Your task to perform on an android device: Show me productivity apps on the Play Store Image 0: 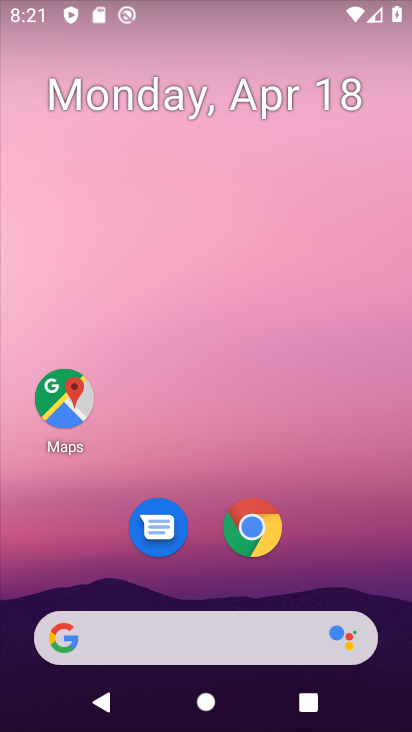
Step 0: drag from (188, 407) to (238, 23)
Your task to perform on an android device: Show me productivity apps on the Play Store Image 1: 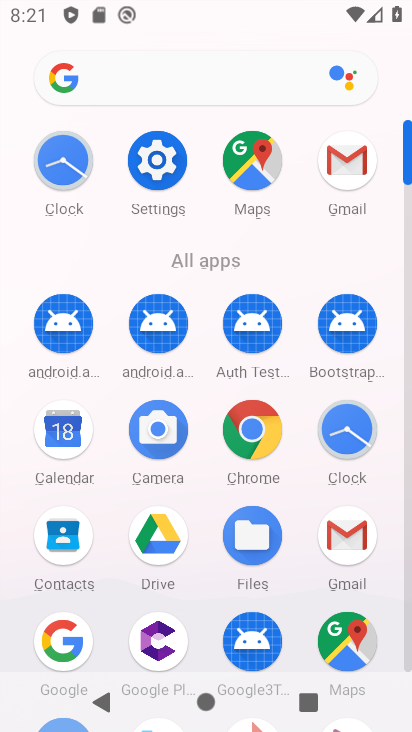
Step 1: drag from (207, 652) to (241, 178)
Your task to perform on an android device: Show me productivity apps on the Play Store Image 2: 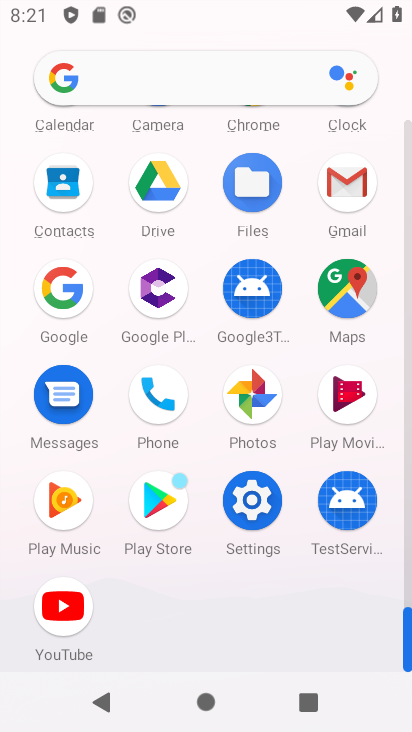
Step 2: click (157, 509)
Your task to perform on an android device: Show me productivity apps on the Play Store Image 3: 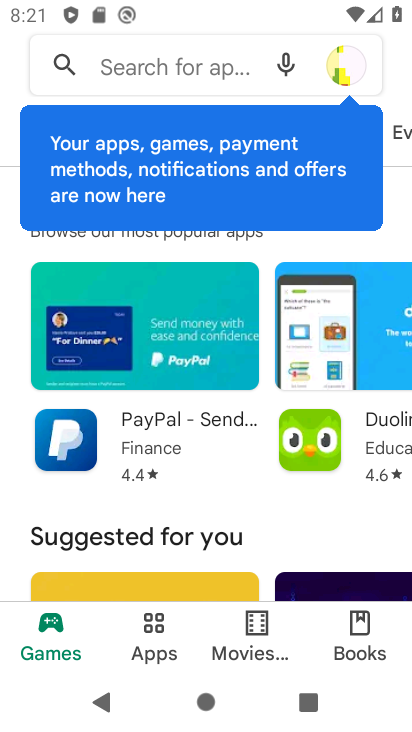
Step 3: click (219, 69)
Your task to perform on an android device: Show me productivity apps on the Play Store Image 4: 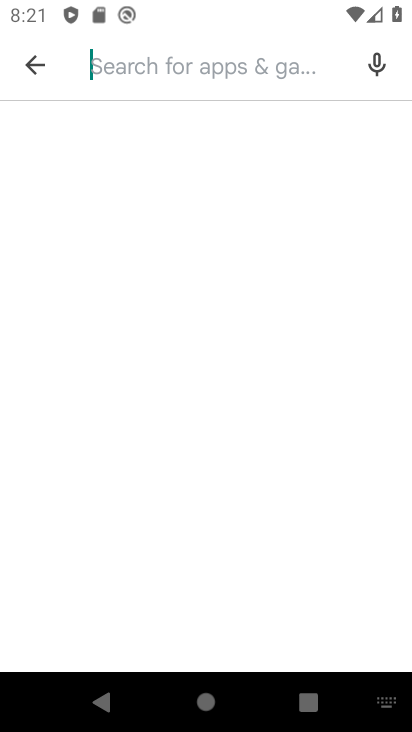
Step 4: click (41, 62)
Your task to perform on an android device: Show me productivity apps on the Play Store Image 5: 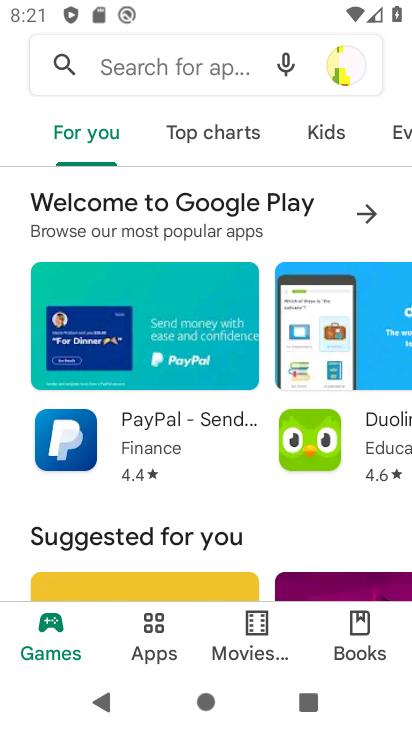
Step 5: click (155, 626)
Your task to perform on an android device: Show me productivity apps on the Play Store Image 6: 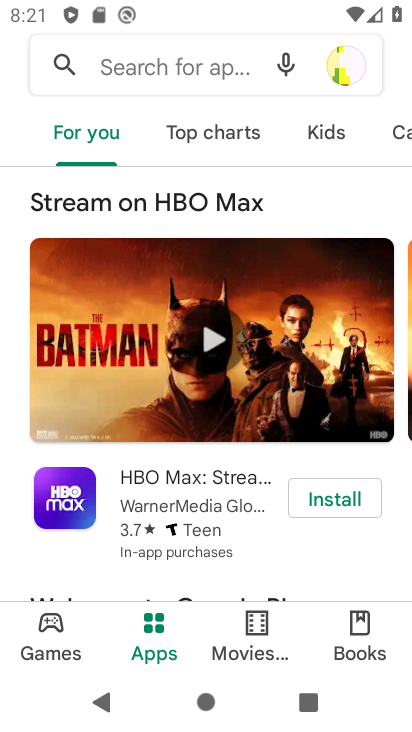
Step 6: drag from (266, 136) to (81, 149)
Your task to perform on an android device: Show me productivity apps on the Play Store Image 7: 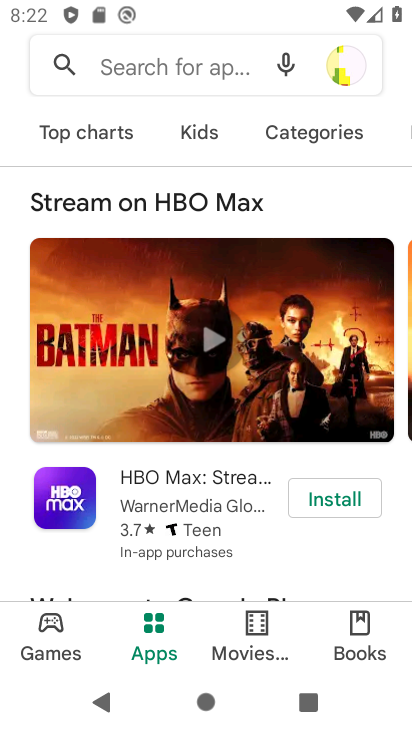
Step 7: click (337, 140)
Your task to perform on an android device: Show me productivity apps on the Play Store Image 8: 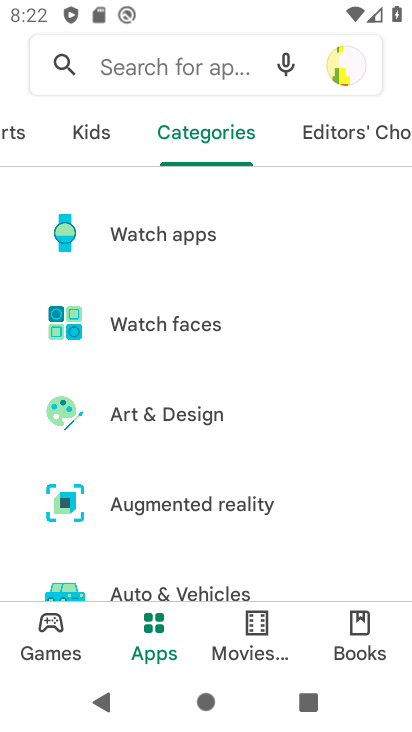
Step 8: drag from (201, 444) to (271, 170)
Your task to perform on an android device: Show me productivity apps on the Play Store Image 9: 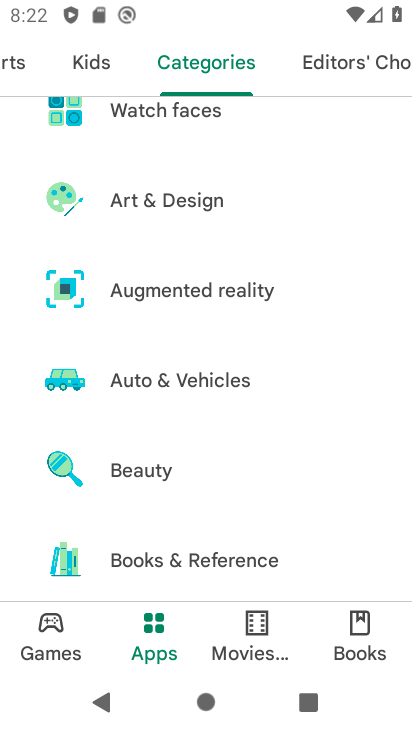
Step 9: drag from (208, 551) to (251, 193)
Your task to perform on an android device: Show me productivity apps on the Play Store Image 10: 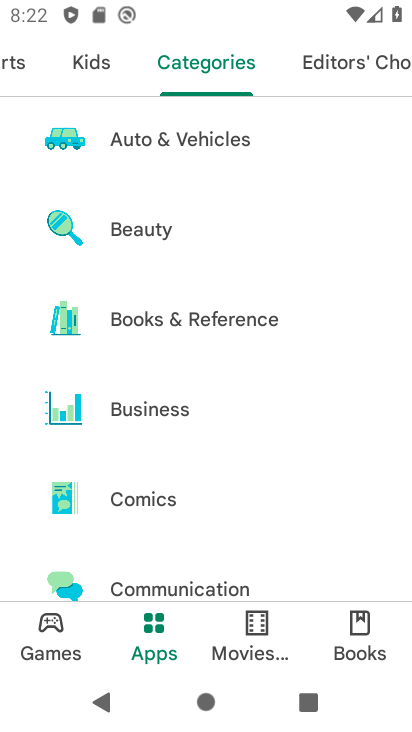
Step 10: drag from (192, 482) to (193, 40)
Your task to perform on an android device: Show me productivity apps on the Play Store Image 11: 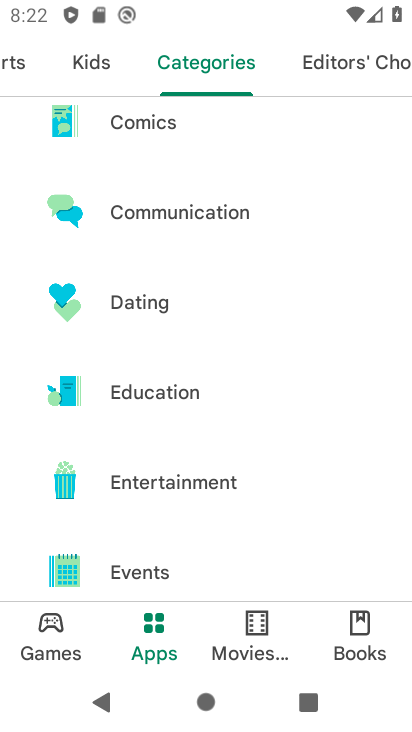
Step 11: drag from (214, 539) to (224, 44)
Your task to perform on an android device: Show me productivity apps on the Play Store Image 12: 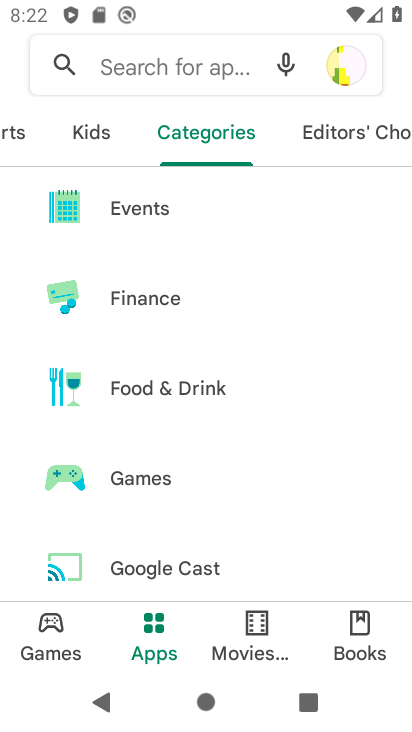
Step 12: drag from (216, 485) to (220, 106)
Your task to perform on an android device: Show me productivity apps on the Play Store Image 13: 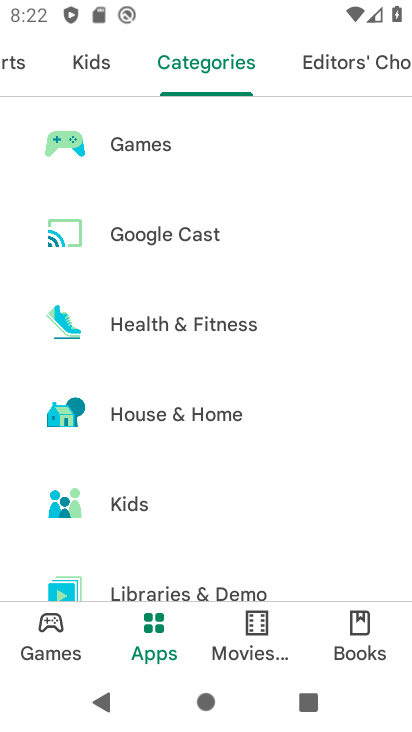
Step 13: drag from (259, 358) to (226, 93)
Your task to perform on an android device: Show me productivity apps on the Play Store Image 14: 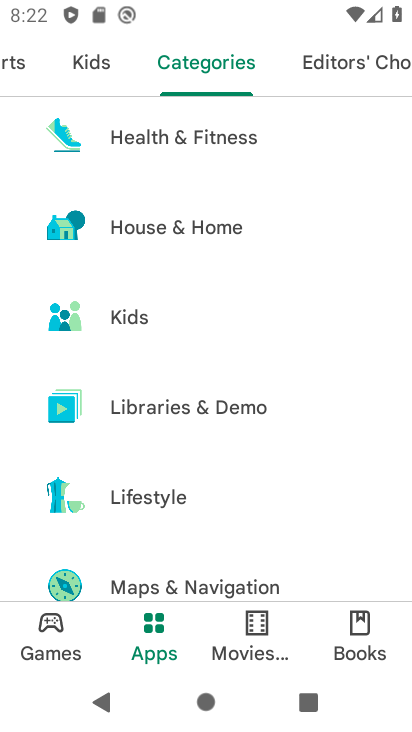
Step 14: drag from (195, 536) to (242, 99)
Your task to perform on an android device: Show me productivity apps on the Play Store Image 15: 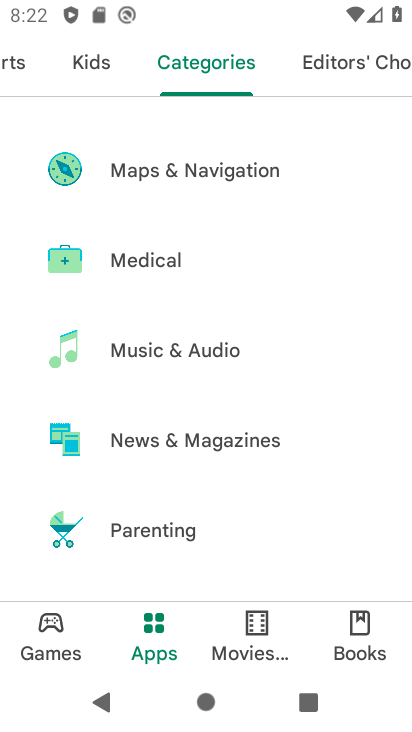
Step 15: drag from (228, 561) to (243, 235)
Your task to perform on an android device: Show me productivity apps on the Play Store Image 16: 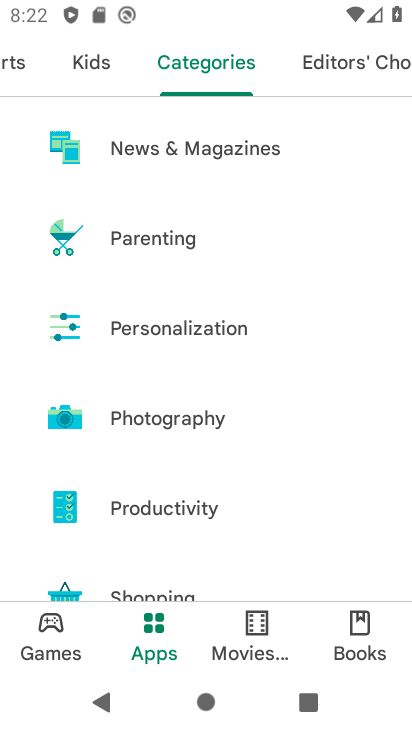
Step 16: click (181, 500)
Your task to perform on an android device: Show me productivity apps on the Play Store Image 17: 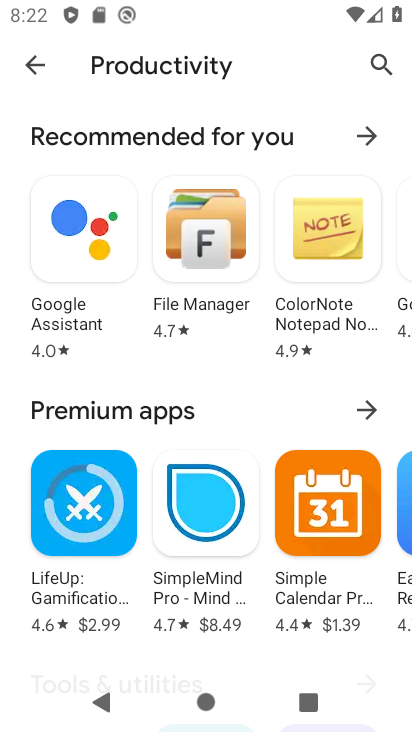
Step 17: task complete